Your task to perform on an android device: Open CNN.com Image 0: 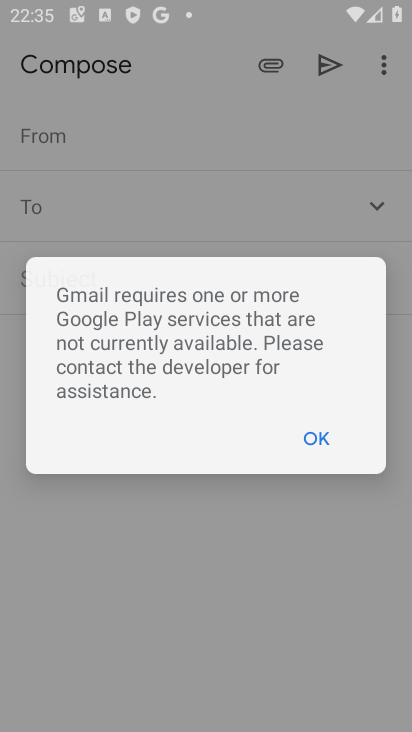
Step 0: click (173, 526)
Your task to perform on an android device: Open CNN.com Image 1: 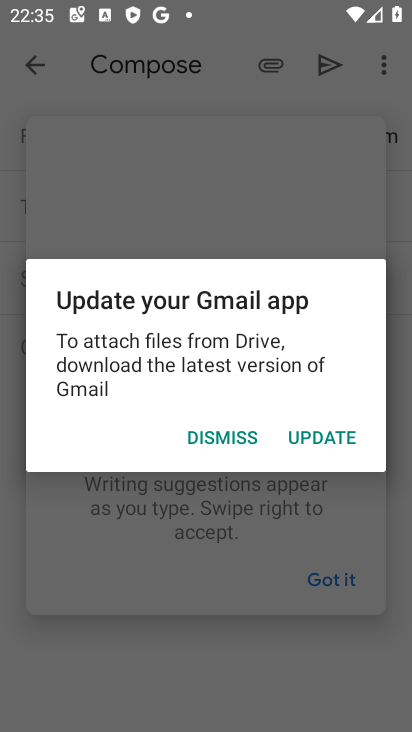
Step 1: press home button
Your task to perform on an android device: Open CNN.com Image 2: 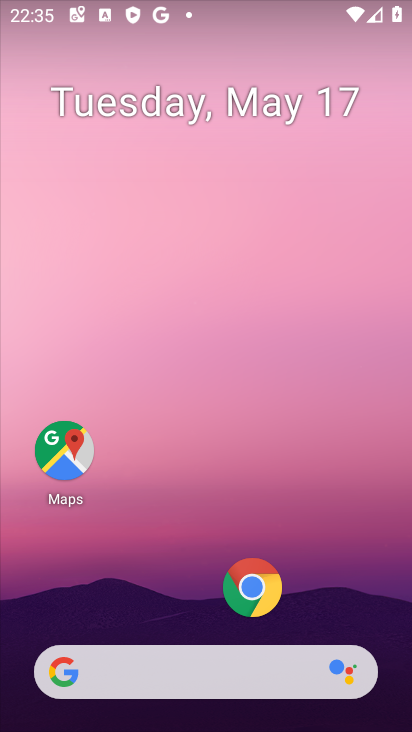
Step 2: drag from (297, 437) to (202, 145)
Your task to perform on an android device: Open CNN.com Image 3: 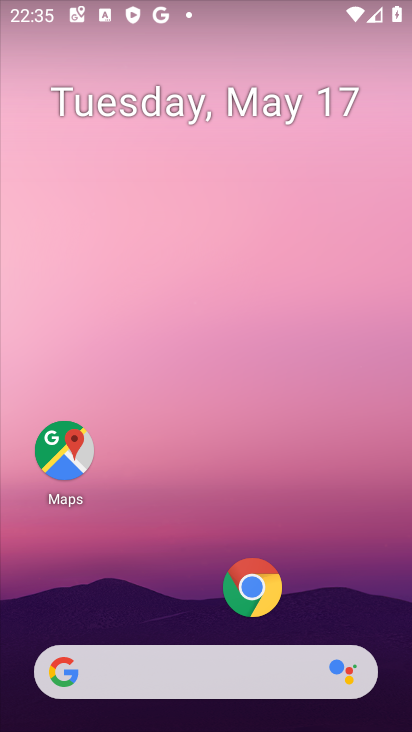
Step 3: drag from (219, 456) to (175, 22)
Your task to perform on an android device: Open CNN.com Image 4: 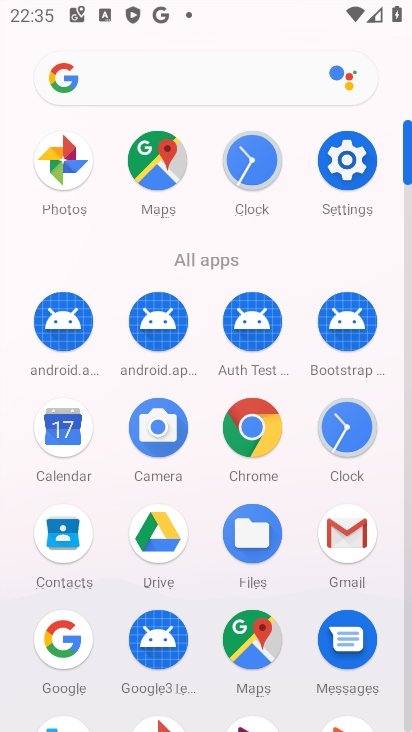
Step 4: click (267, 454)
Your task to perform on an android device: Open CNN.com Image 5: 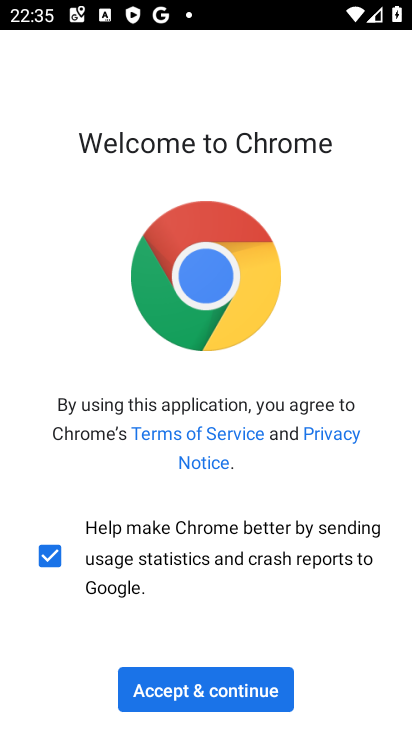
Step 5: click (248, 696)
Your task to perform on an android device: Open CNN.com Image 6: 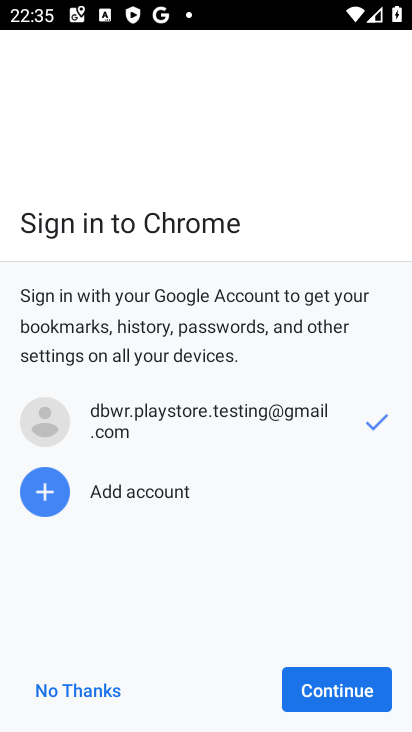
Step 6: click (328, 696)
Your task to perform on an android device: Open CNN.com Image 7: 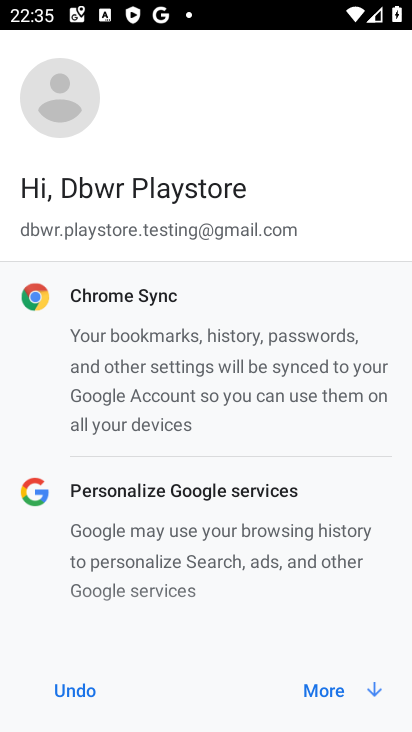
Step 7: click (335, 687)
Your task to perform on an android device: Open CNN.com Image 8: 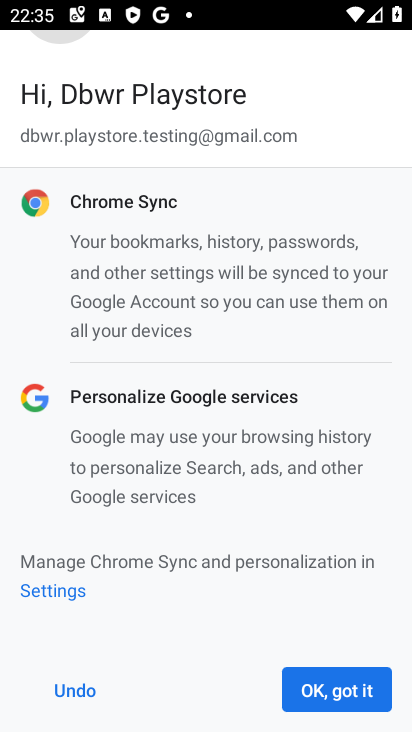
Step 8: click (336, 687)
Your task to perform on an android device: Open CNN.com Image 9: 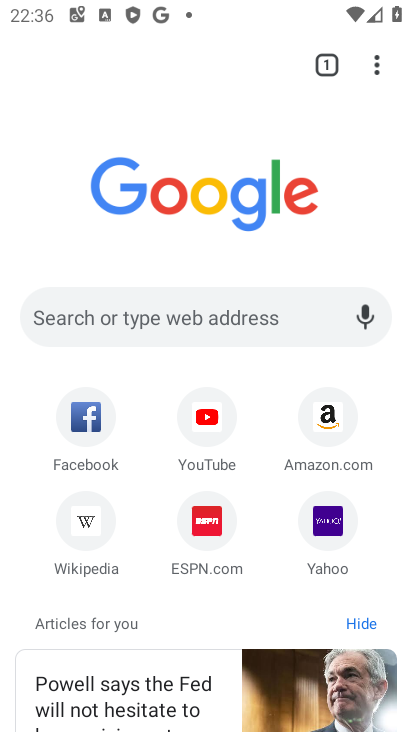
Step 9: click (175, 328)
Your task to perform on an android device: Open CNN.com Image 10: 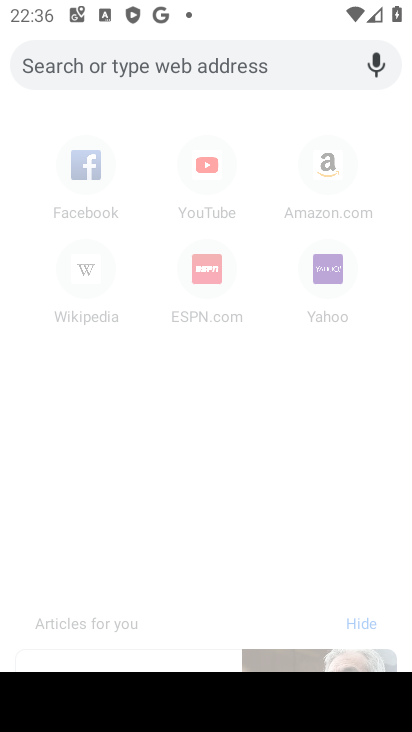
Step 10: type "CNN.com"
Your task to perform on an android device: Open CNN.com Image 11: 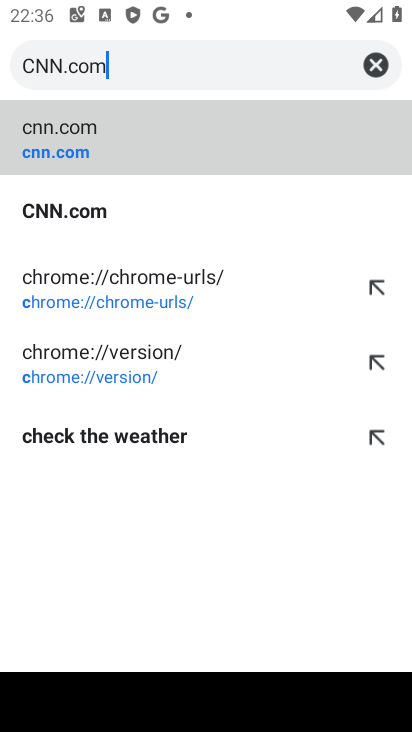
Step 11: type ""
Your task to perform on an android device: Open CNN.com Image 12: 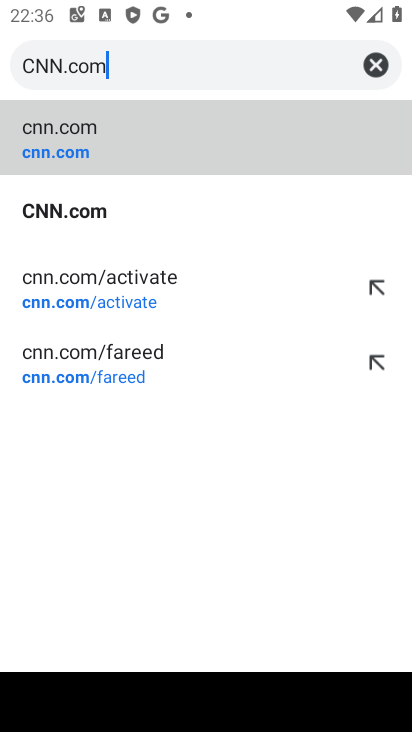
Step 12: click (143, 131)
Your task to perform on an android device: Open CNN.com Image 13: 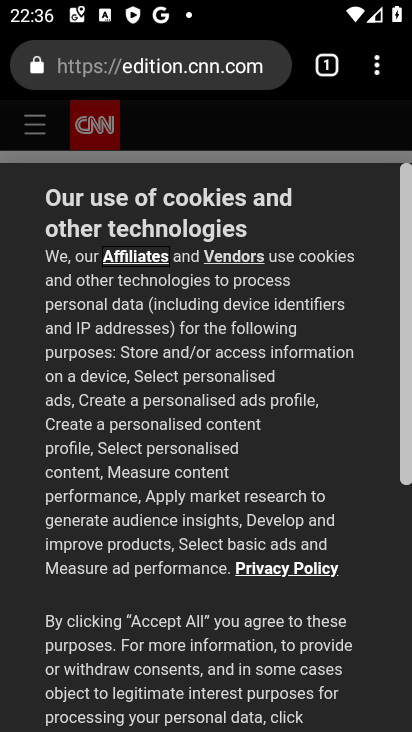
Step 13: task complete